Your task to perform on an android device: Open Google Maps and go to "Timeline" Image 0: 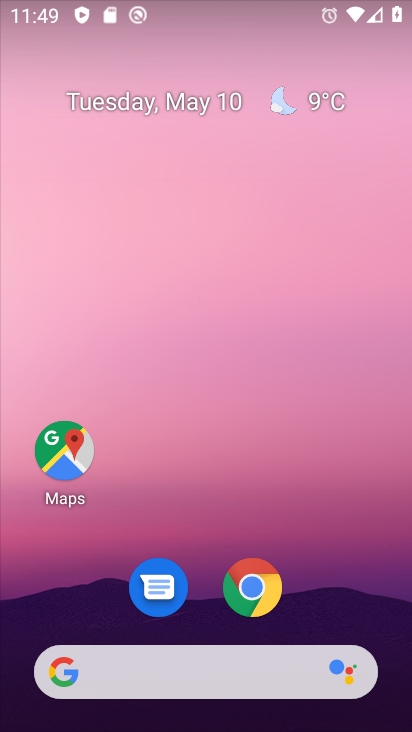
Step 0: click (64, 453)
Your task to perform on an android device: Open Google Maps and go to "Timeline" Image 1: 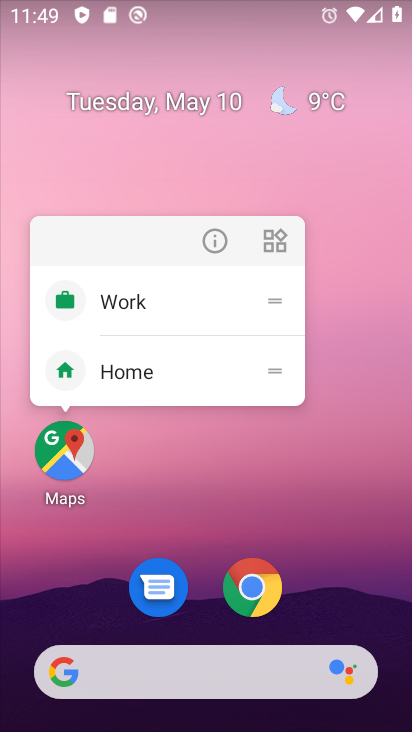
Step 1: click (63, 453)
Your task to perform on an android device: Open Google Maps and go to "Timeline" Image 2: 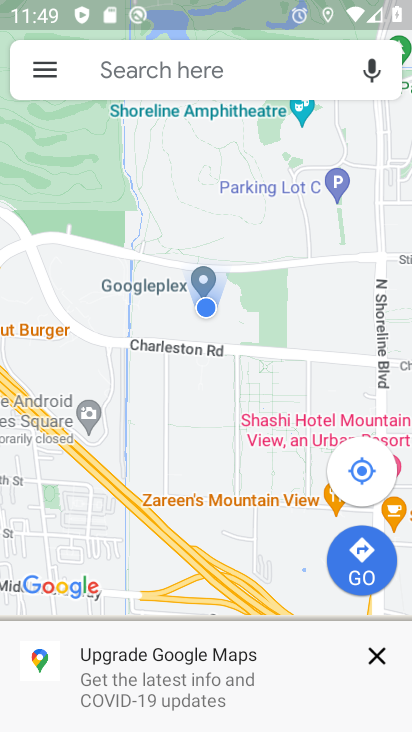
Step 2: click (44, 68)
Your task to perform on an android device: Open Google Maps and go to "Timeline" Image 3: 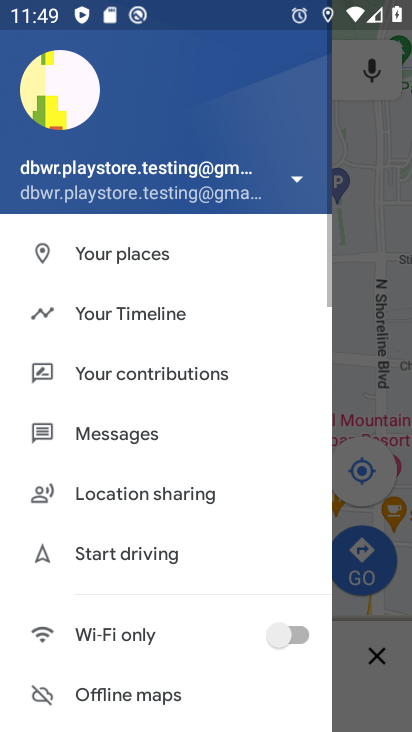
Step 3: click (95, 308)
Your task to perform on an android device: Open Google Maps and go to "Timeline" Image 4: 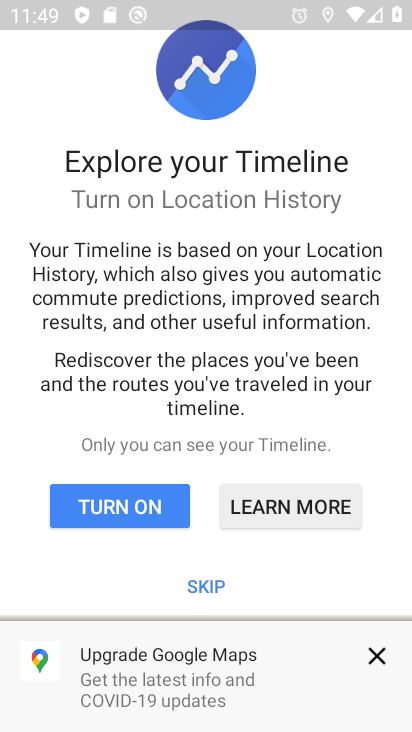
Step 4: click (201, 584)
Your task to perform on an android device: Open Google Maps and go to "Timeline" Image 5: 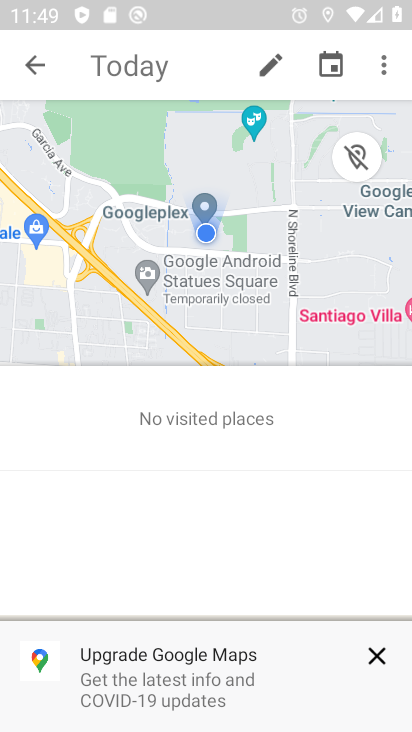
Step 5: task complete